Your task to perform on an android device: change the clock style Image 0: 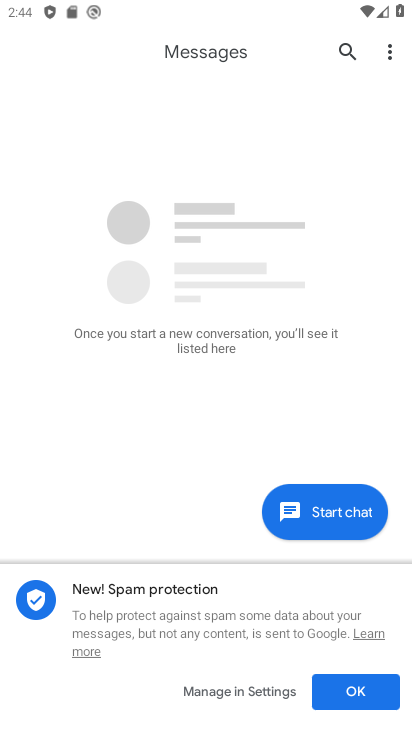
Step 0: drag from (216, 628) to (270, 136)
Your task to perform on an android device: change the clock style Image 1: 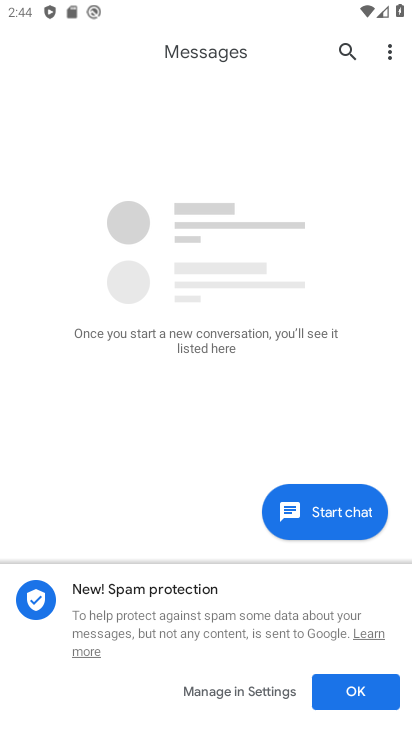
Step 1: press home button
Your task to perform on an android device: change the clock style Image 2: 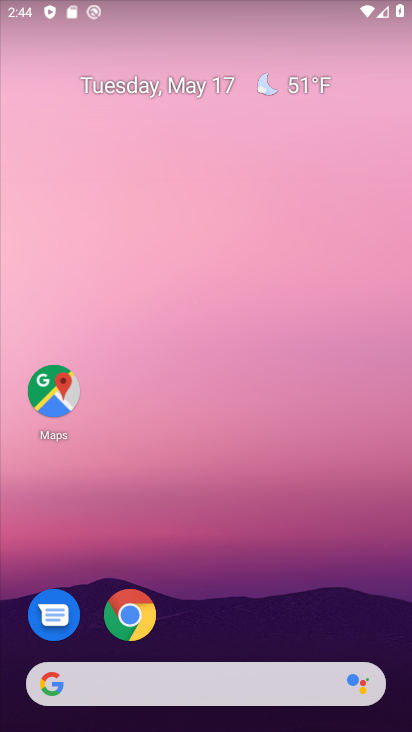
Step 2: drag from (212, 639) to (242, 48)
Your task to perform on an android device: change the clock style Image 3: 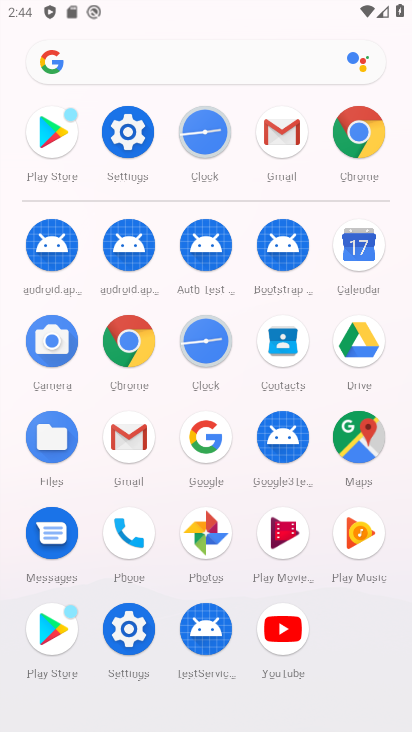
Step 3: click (198, 123)
Your task to perform on an android device: change the clock style Image 4: 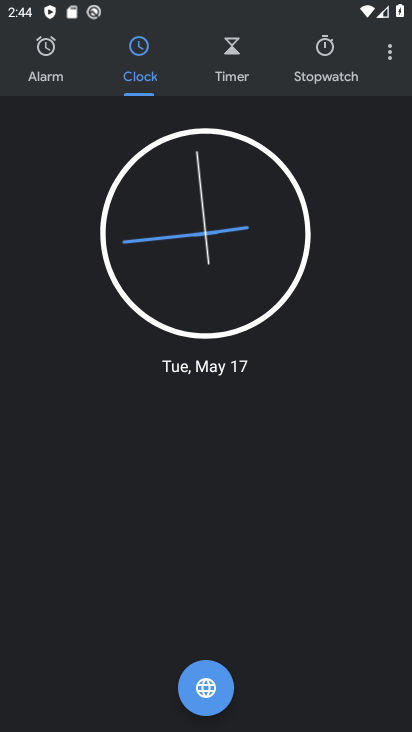
Step 4: click (385, 53)
Your task to perform on an android device: change the clock style Image 5: 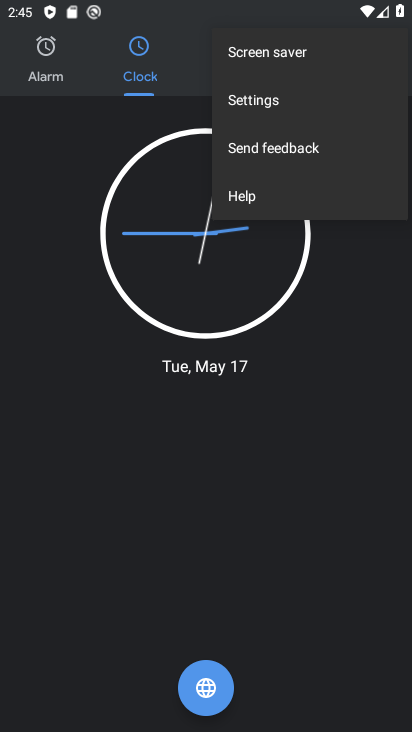
Step 5: click (287, 97)
Your task to perform on an android device: change the clock style Image 6: 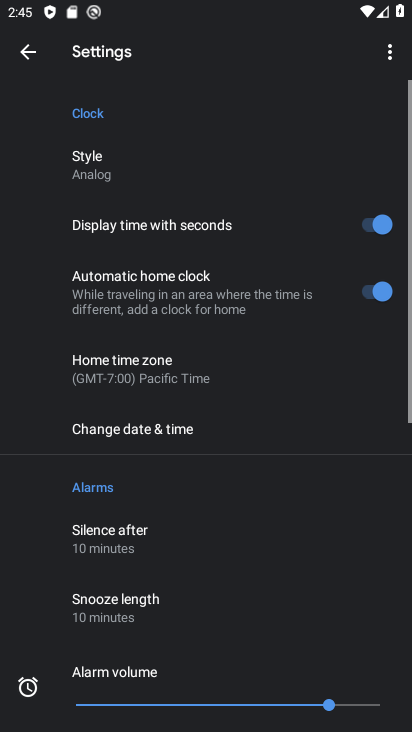
Step 6: click (125, 167)
Your task to perform on an android device: change the clock style Image 7: 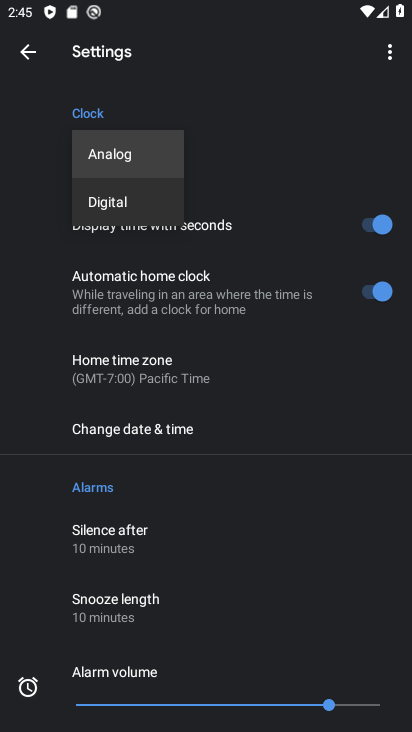
Step 7: click (140, 194)
Your task to perform on an android device: change the clock style Image 8: 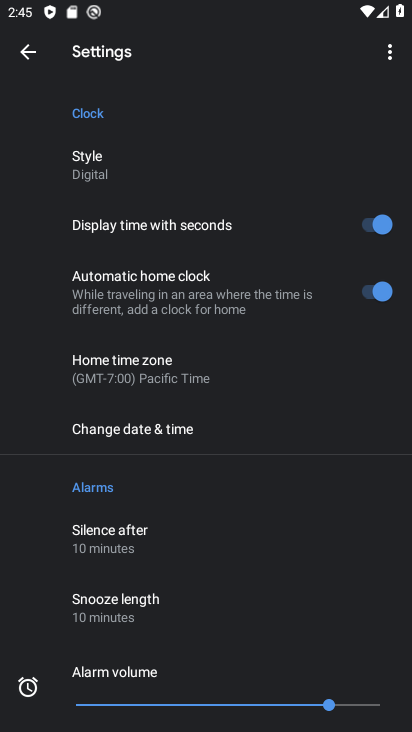
Step 8: task complete